Your task to perform on an android device: Show me the alarms in the clock app Image 0: 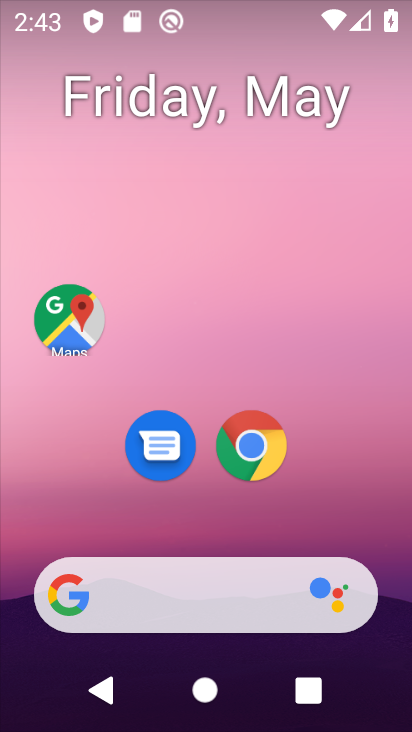
Step 0: drag from (202, 559) to (84, 138)
Your task to perform on an android device: Show me the alarms in the clock app Image 1: 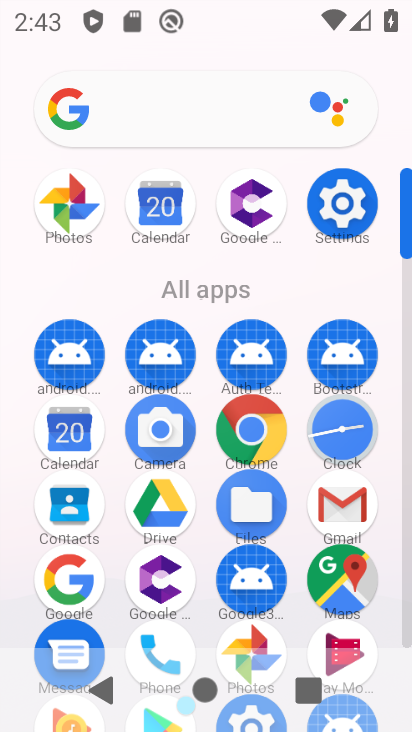
Step 1: click (348, 425)
Your task to perform on an android device: Show me the alarms in the clock app Image 2: 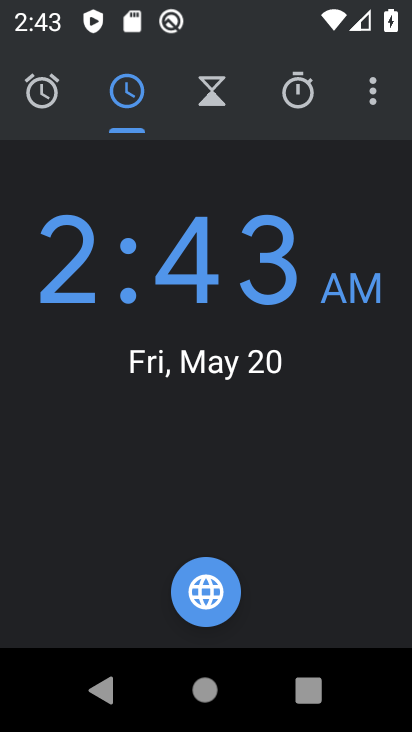
Step 2: click (51, 122)
Your task to perform on an android device: Show me the alarms in the clock app Image 3: 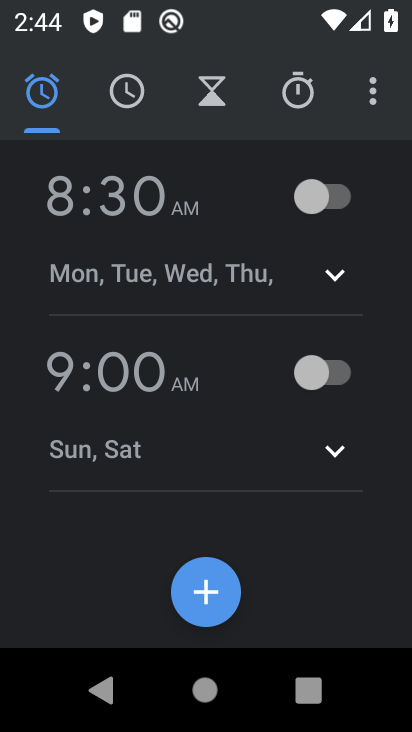
Step 3: task complete